Your task to perform on an android device: Open the web browser Image 0: 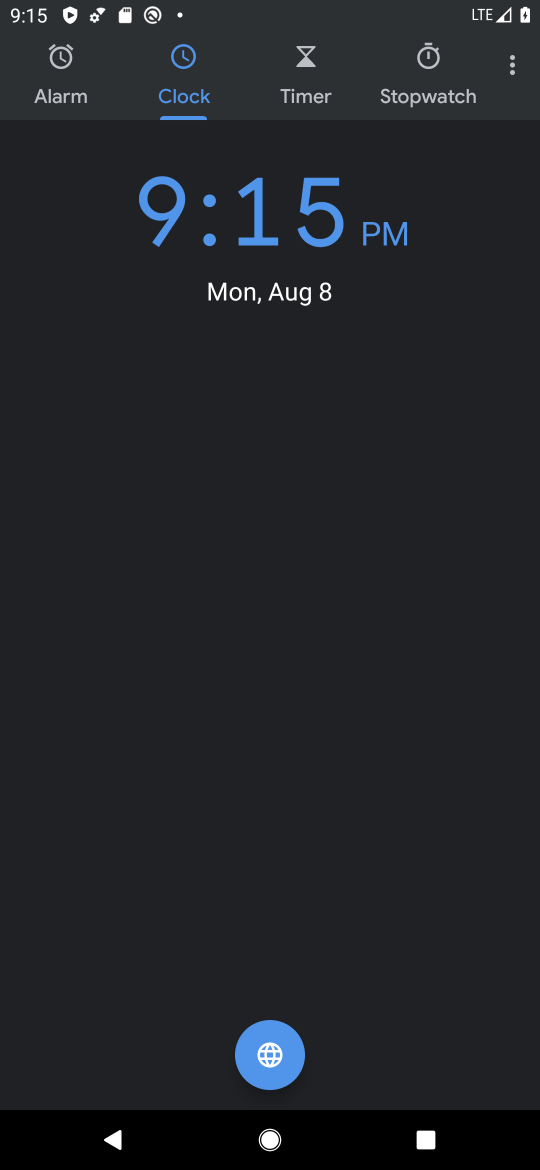
Step 0: press home button
Your task to perform on an android device: Open the web browser Image 1: 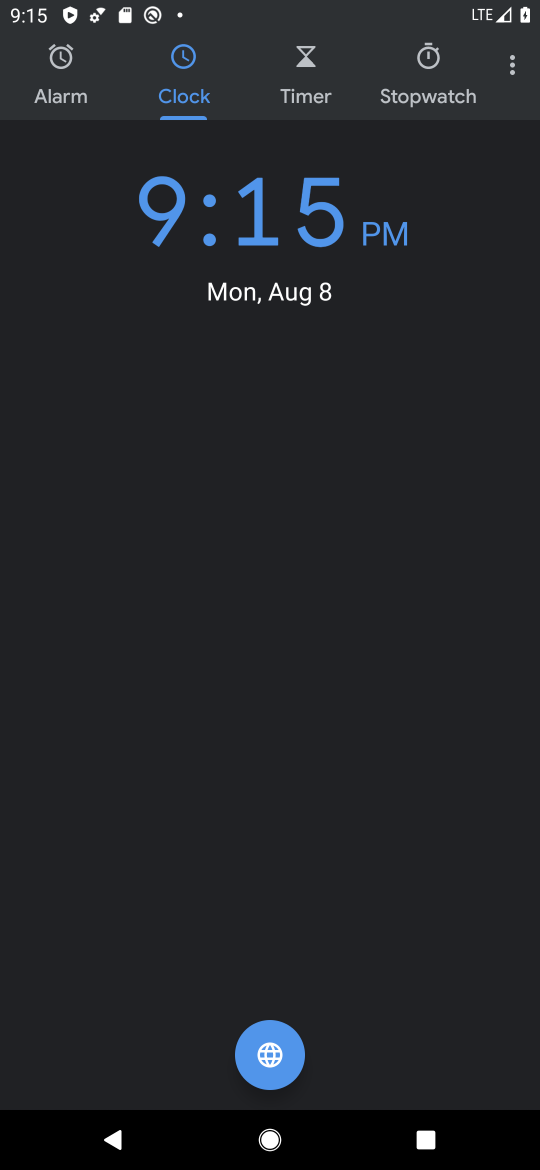
Step 1: press home button
Your task to perform on an android device: Open the web browser Image 2: 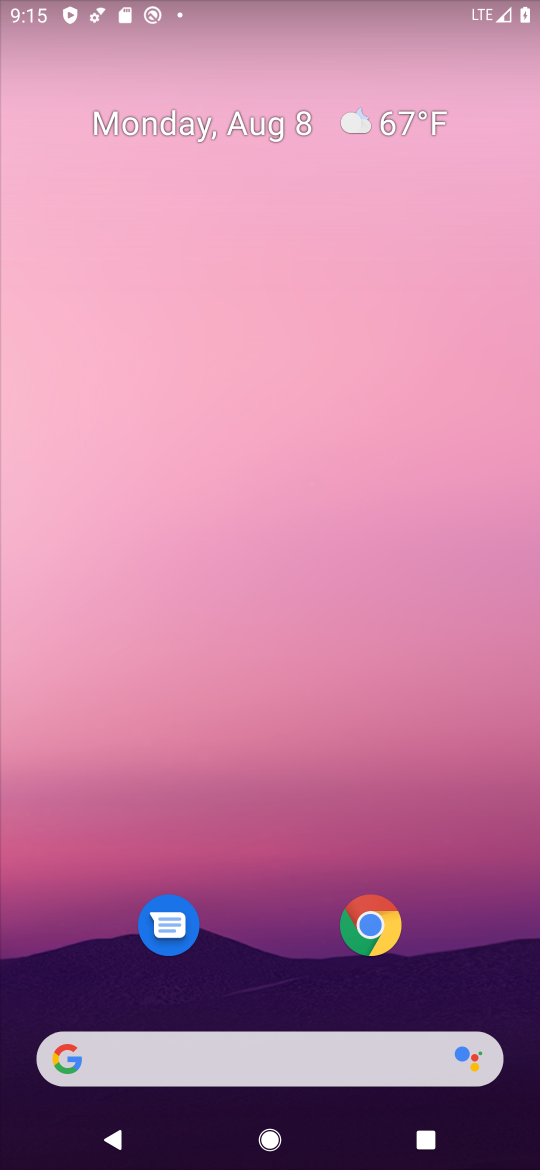
Step 2: drag from (260, 966) to (262, 168)
Your task to perform on an android device: Open the web browser Image 3: 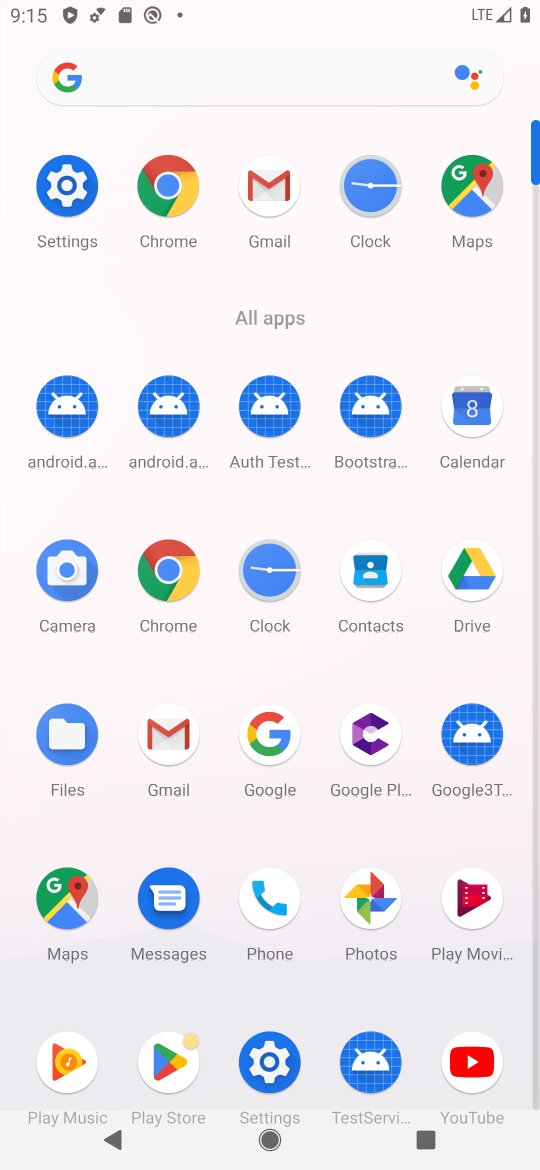
Step 3: click (179, 565)
Your task to perform on an android device: Open the web browser Image 4: 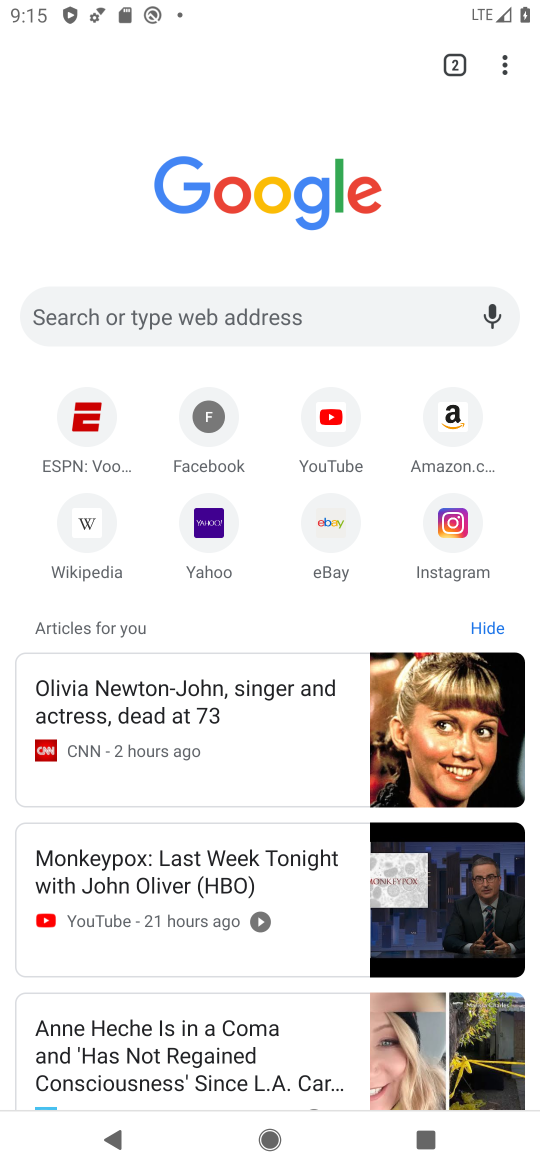
Step 4: task complete